Your task to perform on an android device: turn on wifi Image 0: 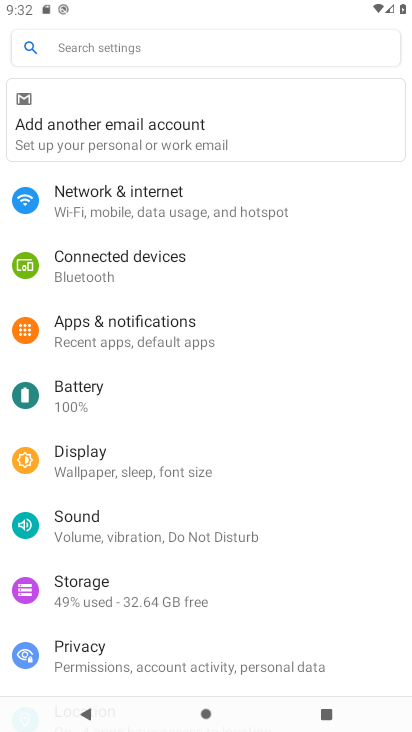
Step 0: press home button
Your task to perform on an android device: turn on wifi Image 1: 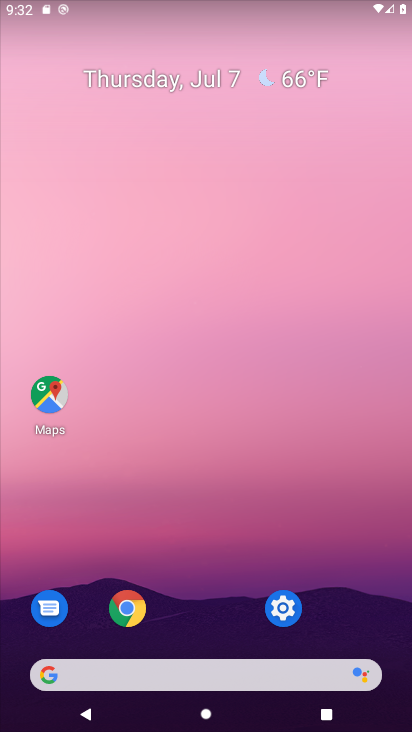
Step 1: click (263, 618)
Your task to perform on an android device: turn on wifi Image 2: 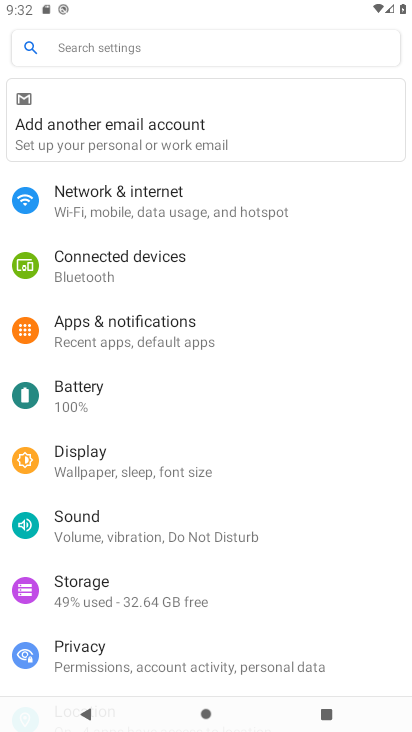
Step 2: click (154, 194)
Your task to perform on an android device: turn on wifi Image 3: 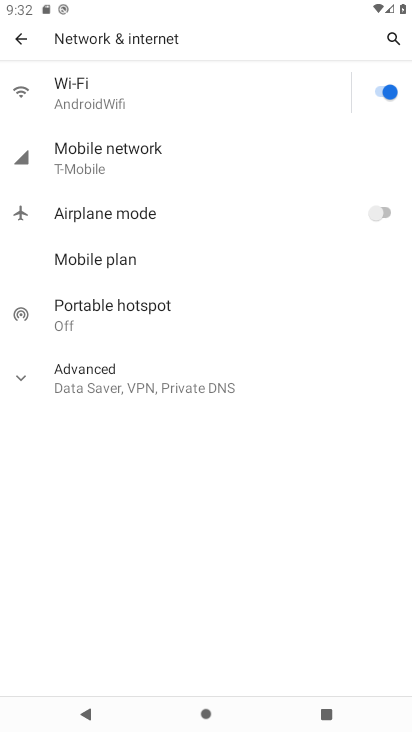
Step 3: click (121, 99)
Your task to perform on an android device: turn on wifi Image 4: 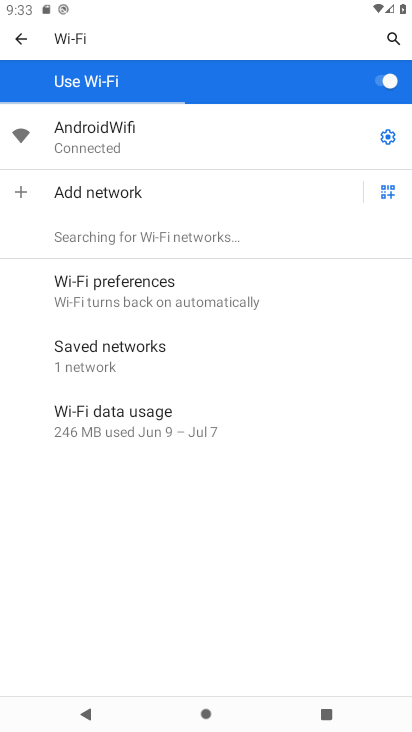
Step 4: task complete